Your task to perform on an android device: Open the phone app and click the voicemail tab. Image 0: 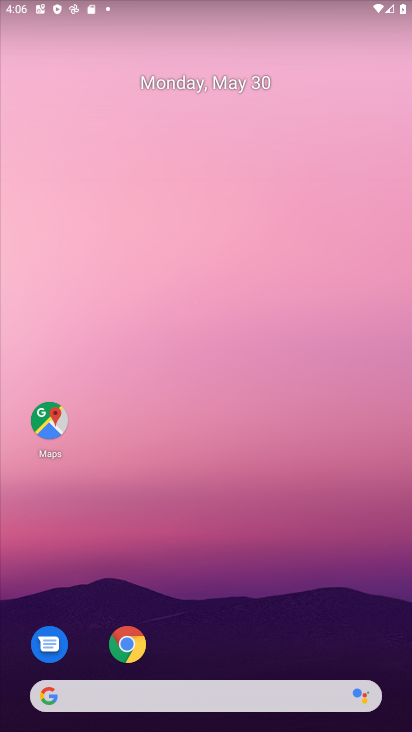
Step 0: drag from (241, 656) to (196, 191)
Your task to perform on an android device: Open the phone app and click the voicemail tab. Image 1: 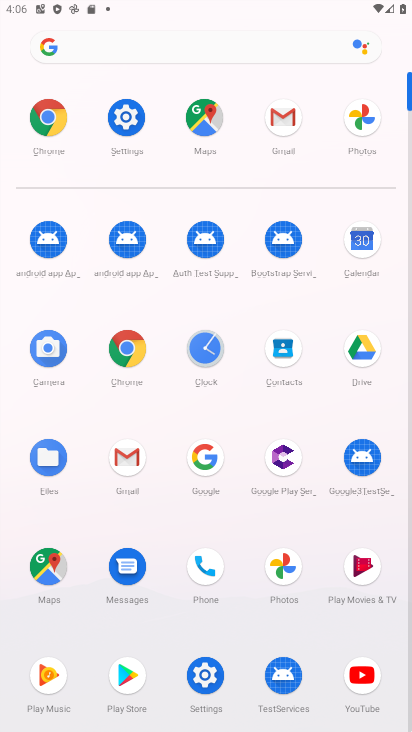
Step 1: click (205, 601)
Your task to perform on an android device: Open the phone app and click the voicemail tab. Image 2: 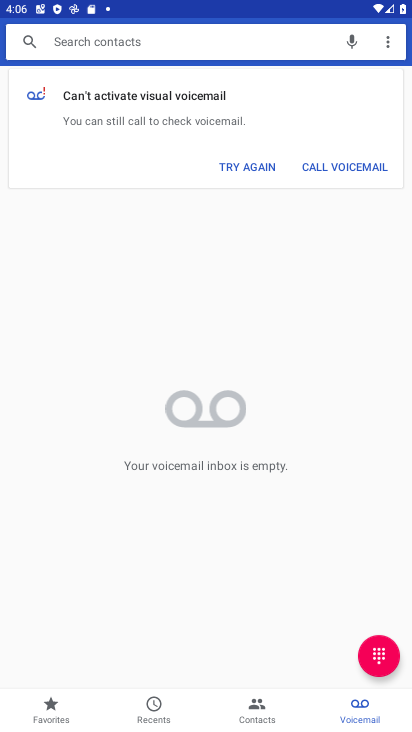
Step 2: task complete